Your task to perform on an android device: Open my contact list Image 0: 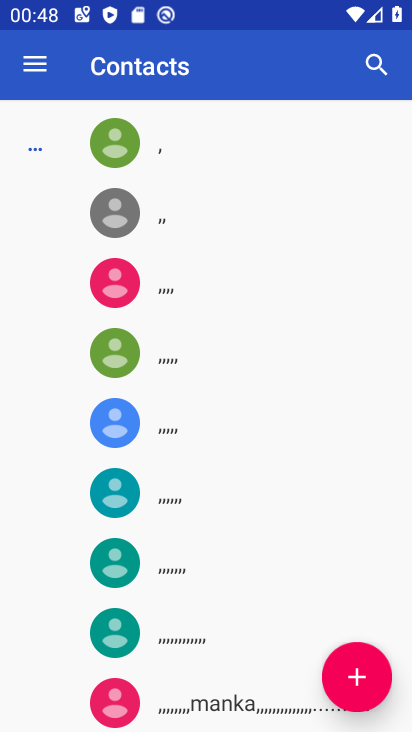
Step 0: press home button
Your task to perform on an android device: Open my contact list Image 1: 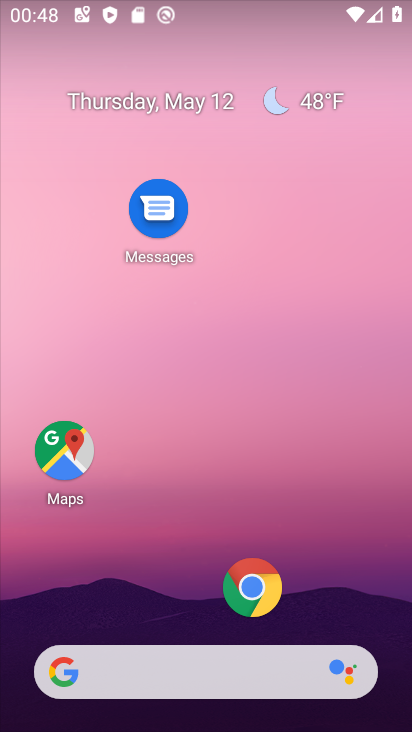
Step 1: drag from (199, 640) to (153, 17)
Your task to perform on an android device: Open my contact list Image 2: 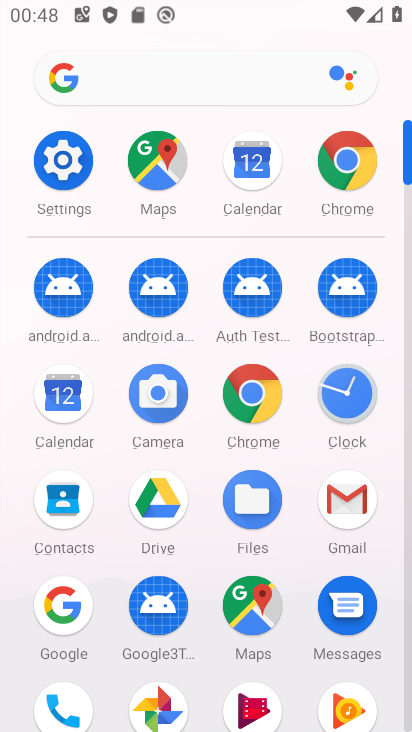
Step 2: click (44, 689)
Your task to perform on an android device: Open my contact list Image 3: 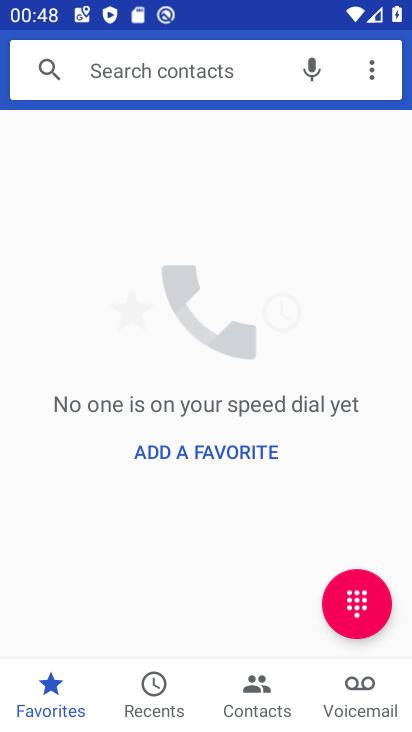
Step 3: click (331, 695)
Your task to perform on an android device: Open my contact list Image 4: 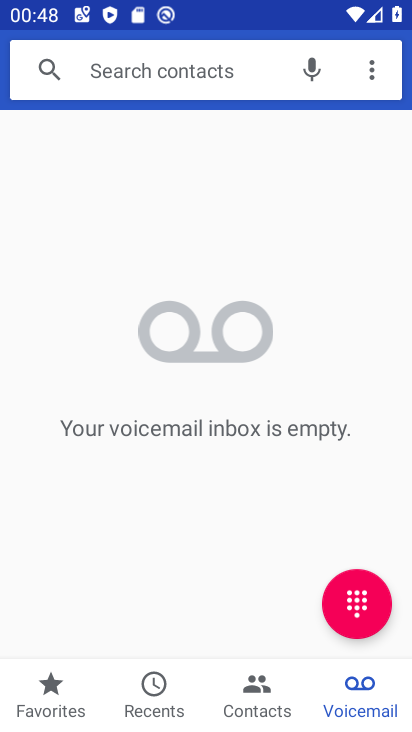
Step 4: click (241, 688)
Your task to perform on an android device: Open my contact list Image 5: 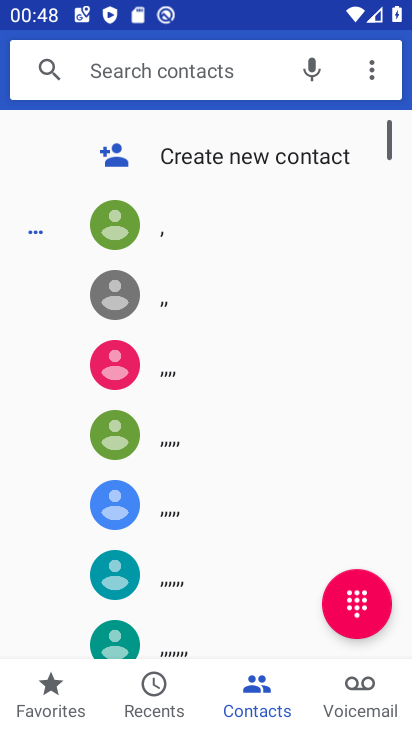
Step 5: task complete